Your task to perform on an android device: turn on the 12-hour format for clock Image 0: 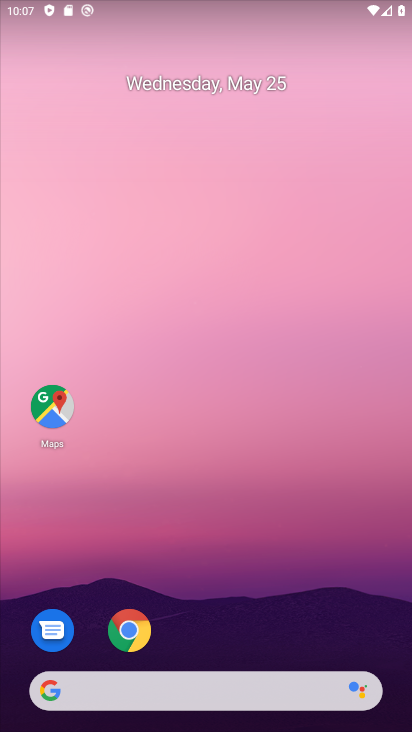
Step 0: drag from (254, 504) to (409, 119)
Your task to perform on an android device: turn on the 12-hour format for clock Image 1: 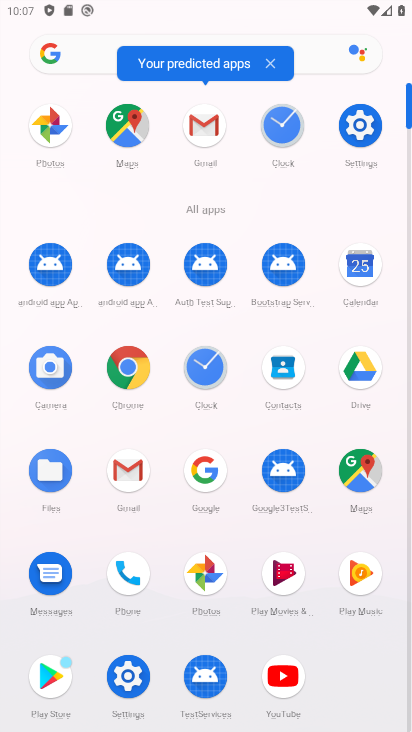
Step 1: click (368, 140)
Your task to perform on an android device: turn on the 12-hour format for clock Image 2: 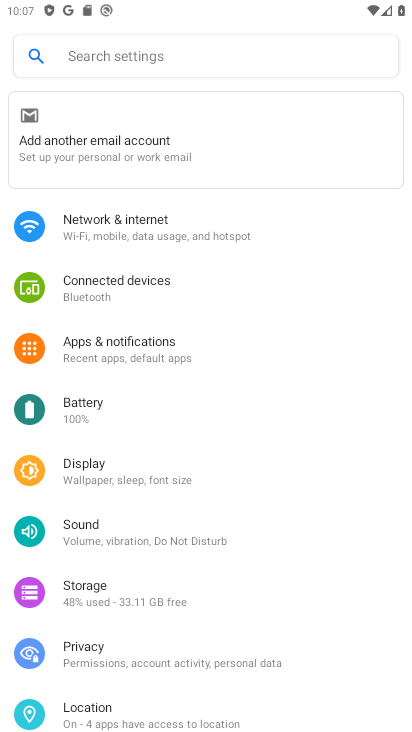
Step 2: drag from (318, 663) to (274, 99)
Your task to perform on an android device: turn on the 12-hour format for clock Image 3: 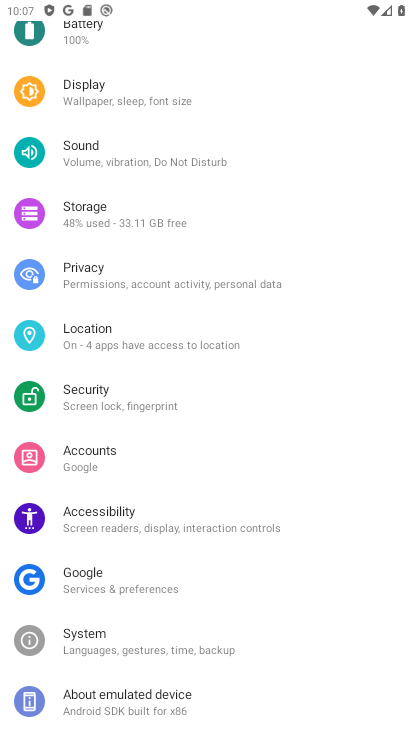
Step 3: click (116, 702)
Your task to perform on an android device: turn on the 12-hour format for clock Image 4: 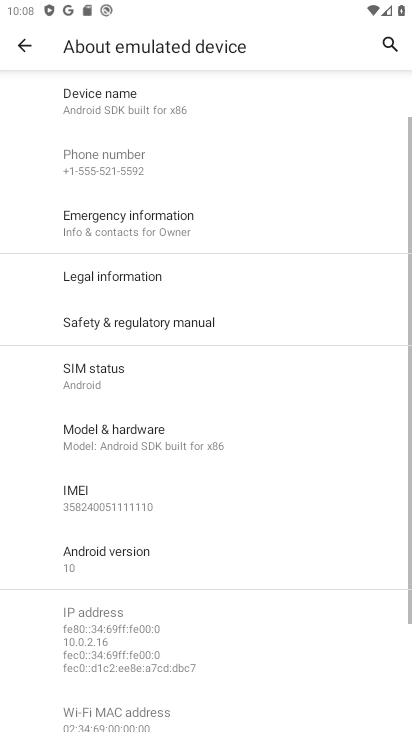
Step 4: click (22, 52)
Your task to perform on an android device: turn on the 12-hour format for clock Image 5: 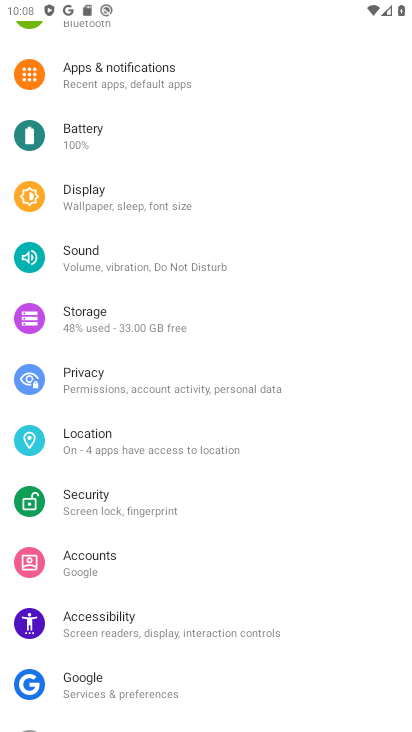
Step 5: drag from (101, 650) to (145, 317)
Your task to perform on an android device: turn on the 12-hour format for clock Image 6: 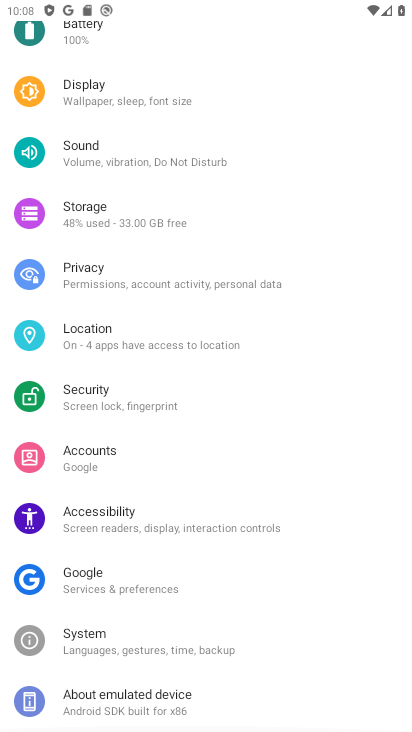
Step 6: click (95, 641)
Your task to perform on an android device: turn on the 12-hour format for clock Image 7: 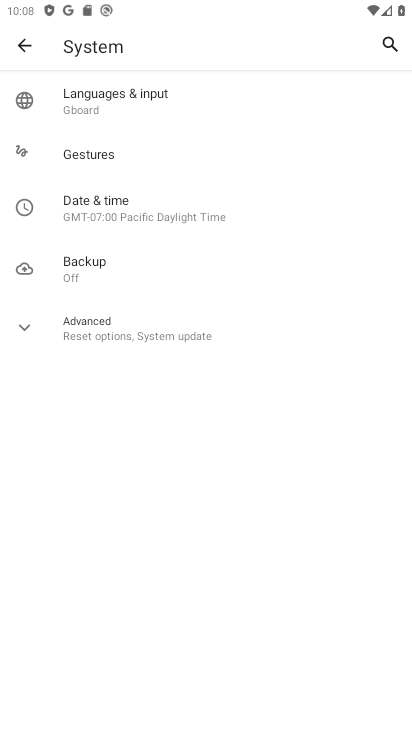
Step 7: click (145, 195)
Your task to perform on an android device: turn on the 12-hour format for clock Image 8: 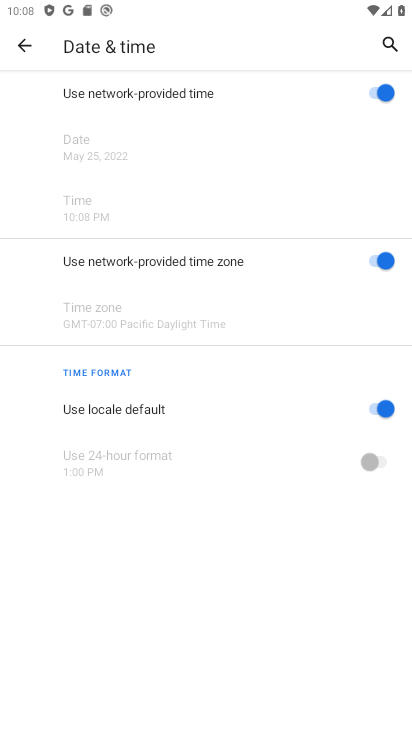
Step 8: task complete